Your task to perform on an android device: Go to Google maps Image 0: 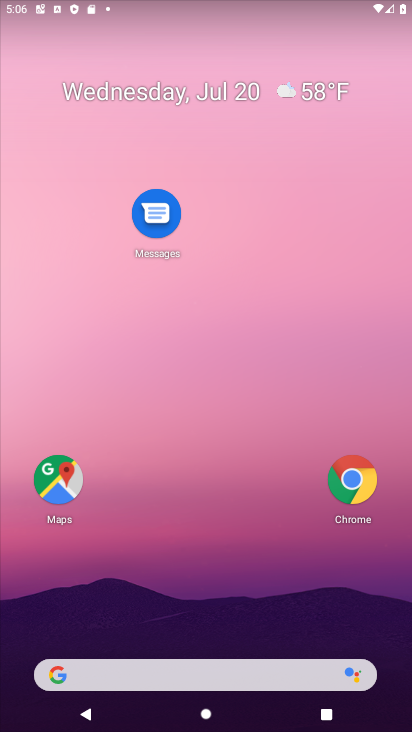
Step 0: click (55, 479)
Your task to perform on an android device: Go to Google maps Image 1: 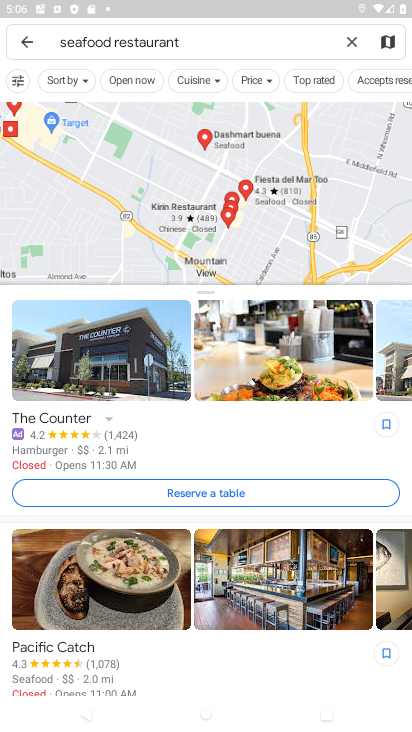
Step 1: task complete